Your task to perform on an android device: visit the assistant section in the google photos Image 0: 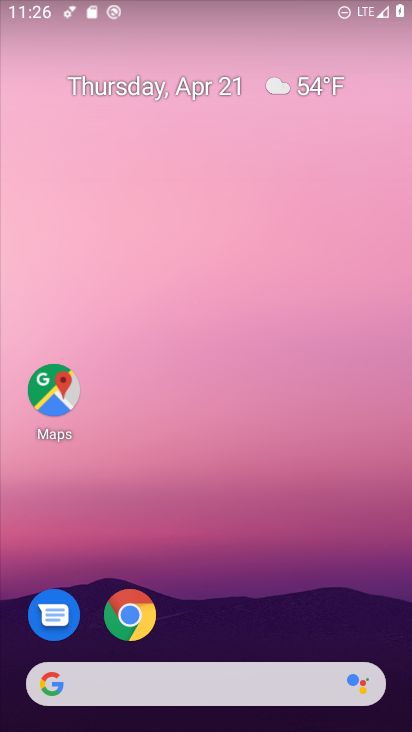
Step 0: drag from (264, 632) to (216, 210)
Your task to perform on an android device: visit the assistant section in the google photos Image 1: 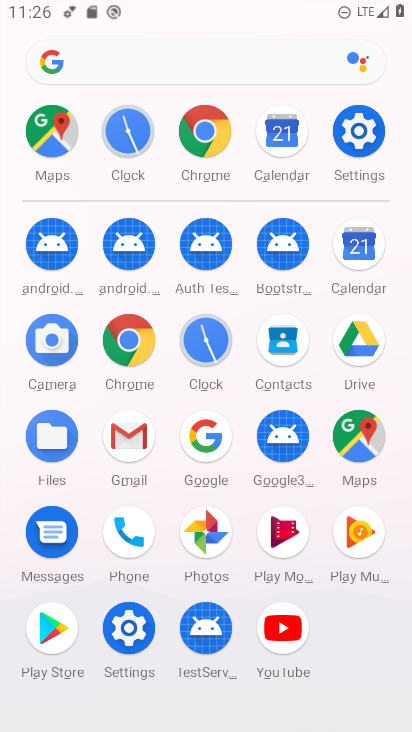
Step 1: click (200, 533)
Your task to perform on an android device: visit the assistant section in the google photos Image 2: 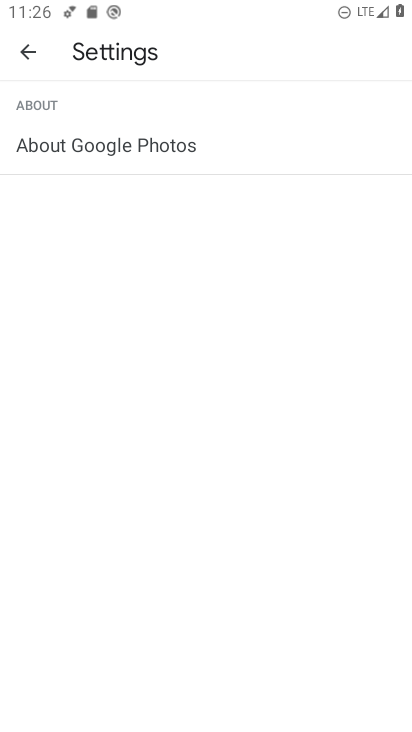
Step 2: click (28, 51)
Your task to perform on an android device: visit the assistant section in the google photos Image 3: 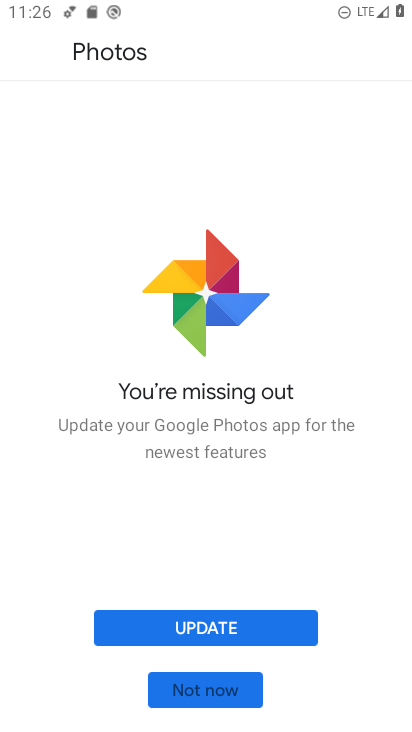
Step 3: click (245, 625)
Your task to perform on an android device: visit the assistant section in the google photos Image 4: 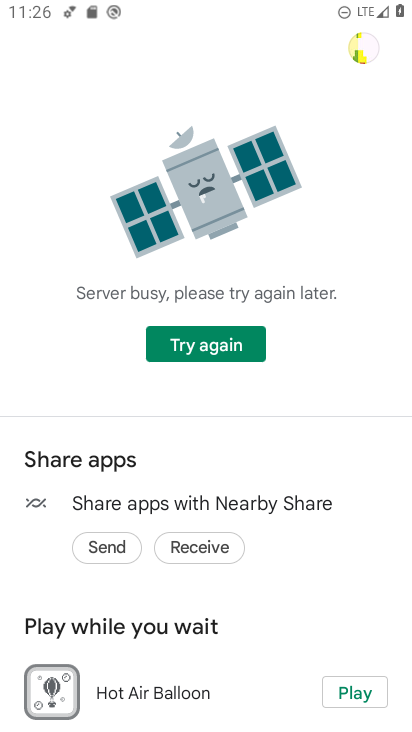
Step 4: click (185, 336)
Your task to perform on an android device: visit the assistant section in the google photos Image 5: 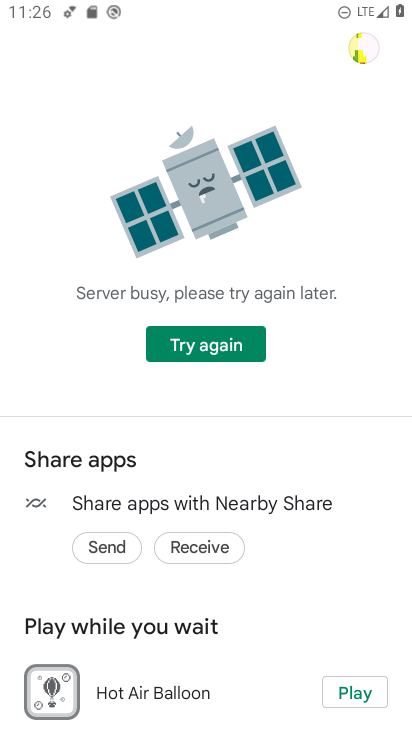
Step 5: click (185, 336)
Your task to perform on an android device: visit the assistant section in the google photos Image 6: 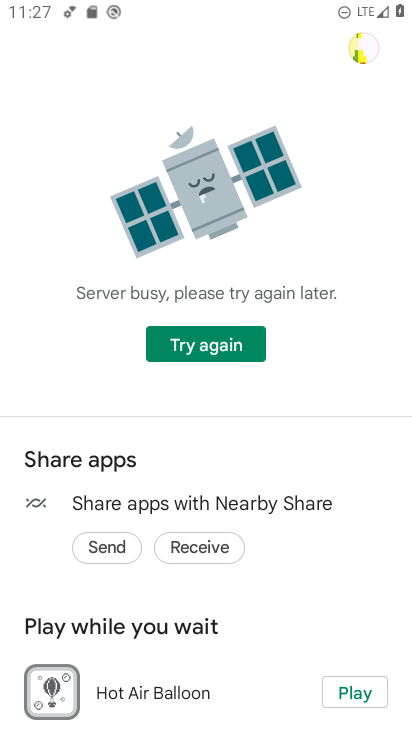
Step 6: click (177, 329)
Your task to perform on an android device: visit the assistant section in the google photos Image 7: 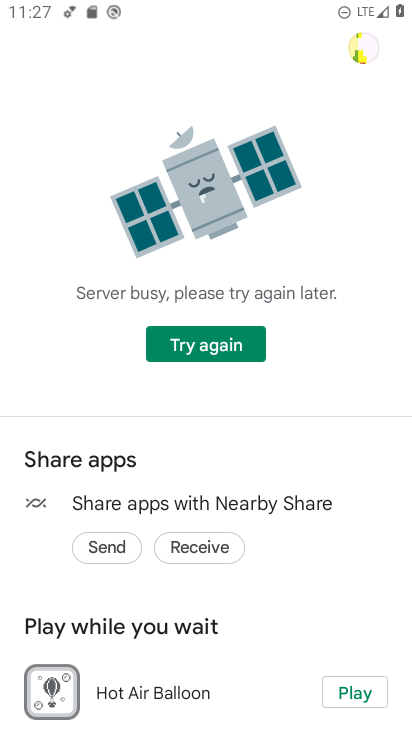
Step 7: click (177, 328)
Your task to perform on an android device: visit the assistant section in the google photos Image 8: 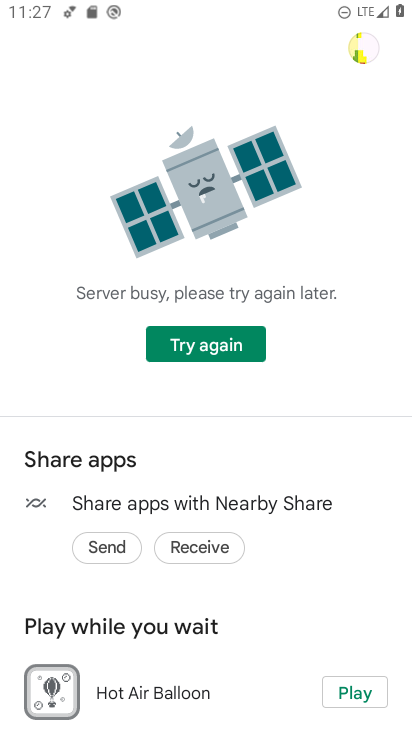
Step 8: click (179, 335)
Your task to perform on an android device: visit the assistant section in the google photos Image 9: 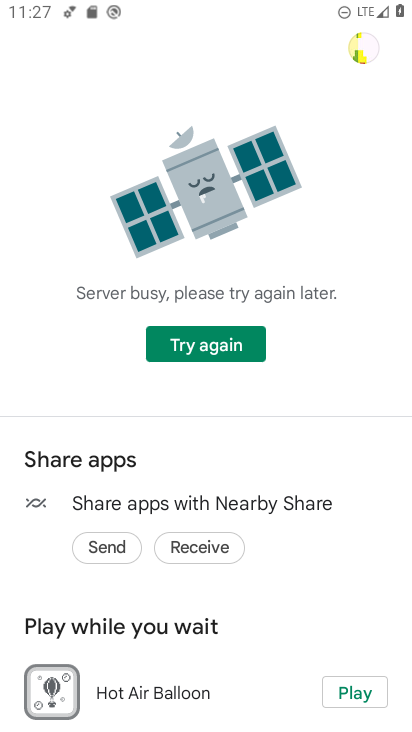
Step 9: click (205, 349)
Your task to perform on an android device: visit the assistant section in the google photos Image 10: 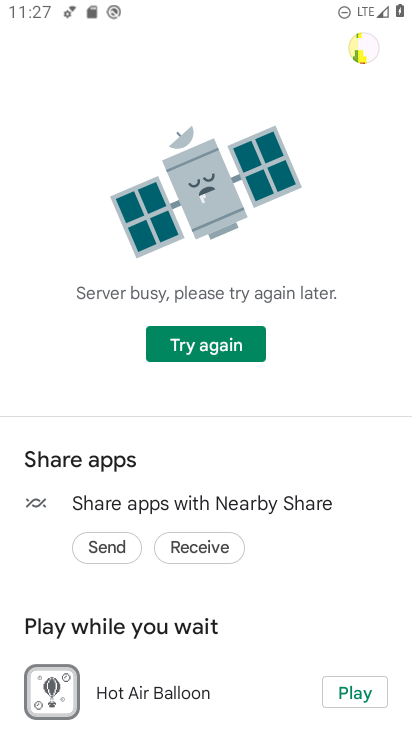
Step 10: click (218, 362)
Your task to perform on an android device: visit the assistant section in the google photos Image 11: 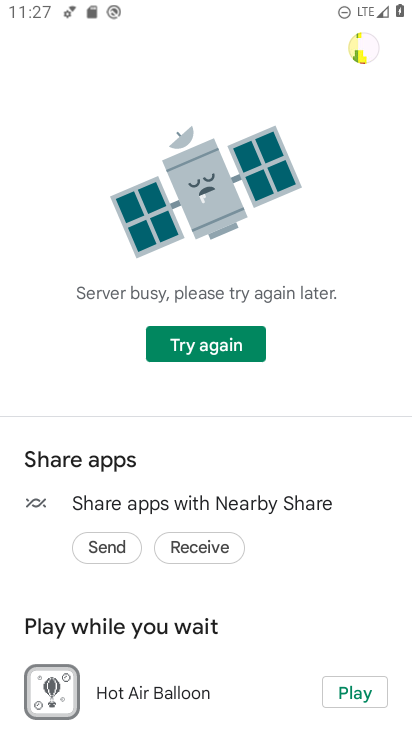
Step 11: task complete